Your task to perform on an android device: Open Google Chrome Image 0: 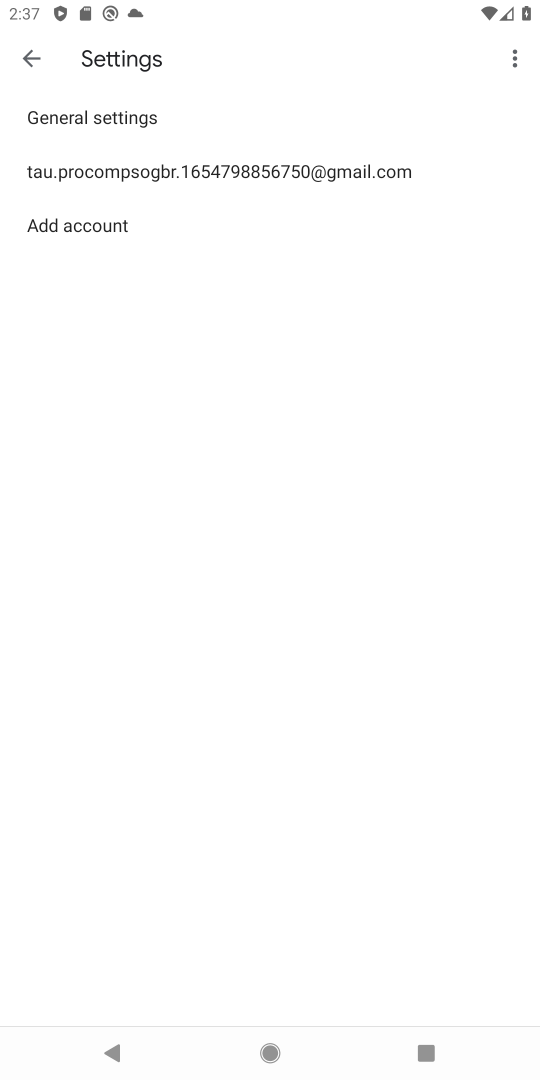
Step 0: click (27, 43)
Your task to perform on an android device: Open Google Chrome Image 1: 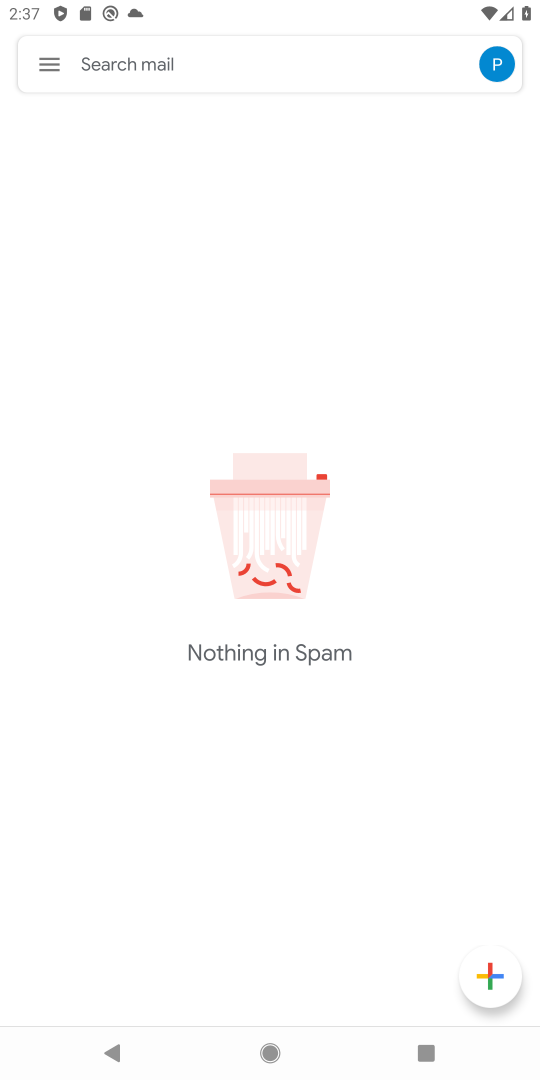
Step 1: press home button
Your task to perform on an android device: Open Google Chrome Image 2: 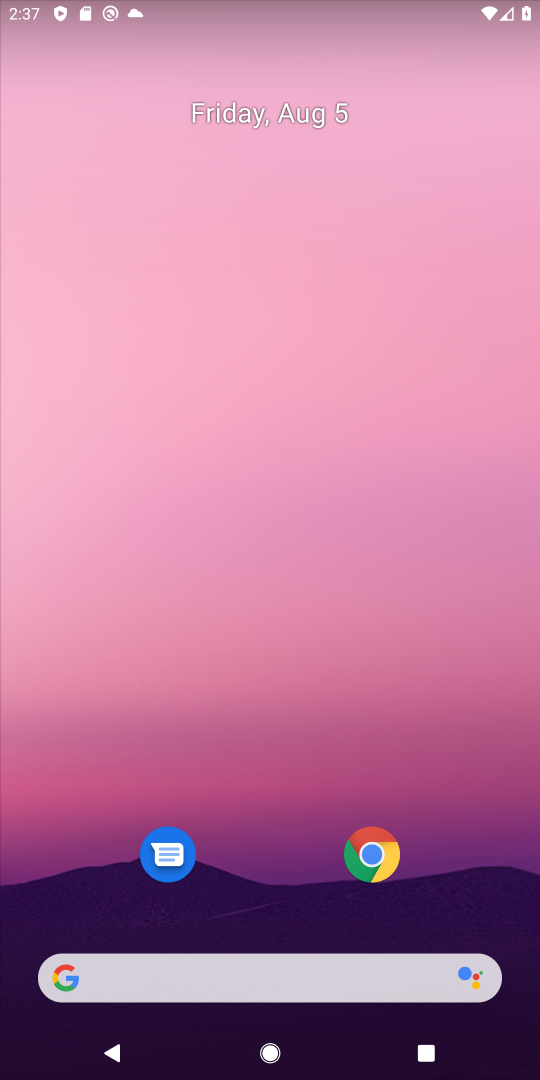
Step 2: click (381, 854)
Your task to perform on an android device: Open Google Chrome Image 3: 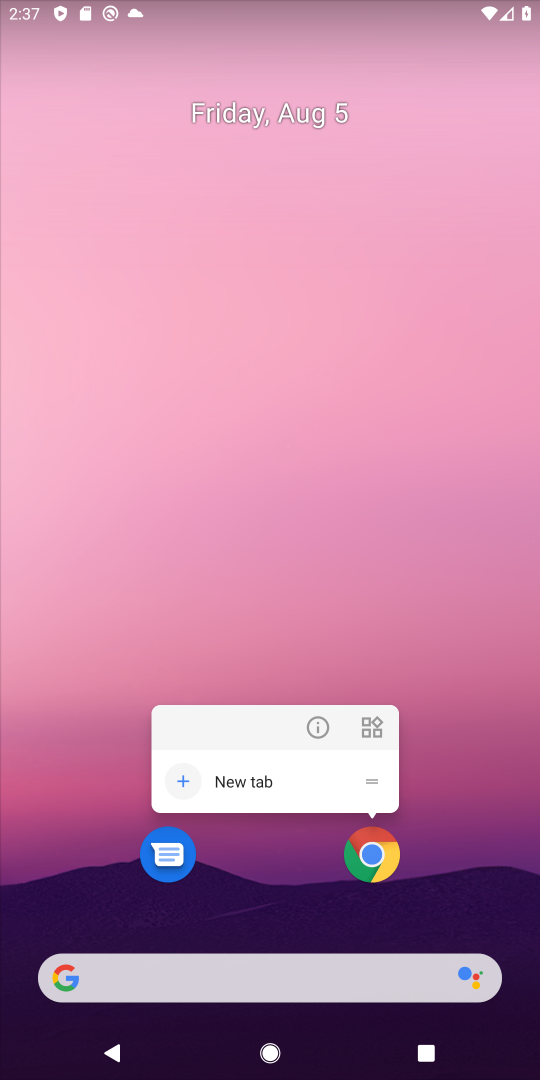
Step 3: click (376, 854)
Your task to perform on an android device: Open Google Chrome Image 4: 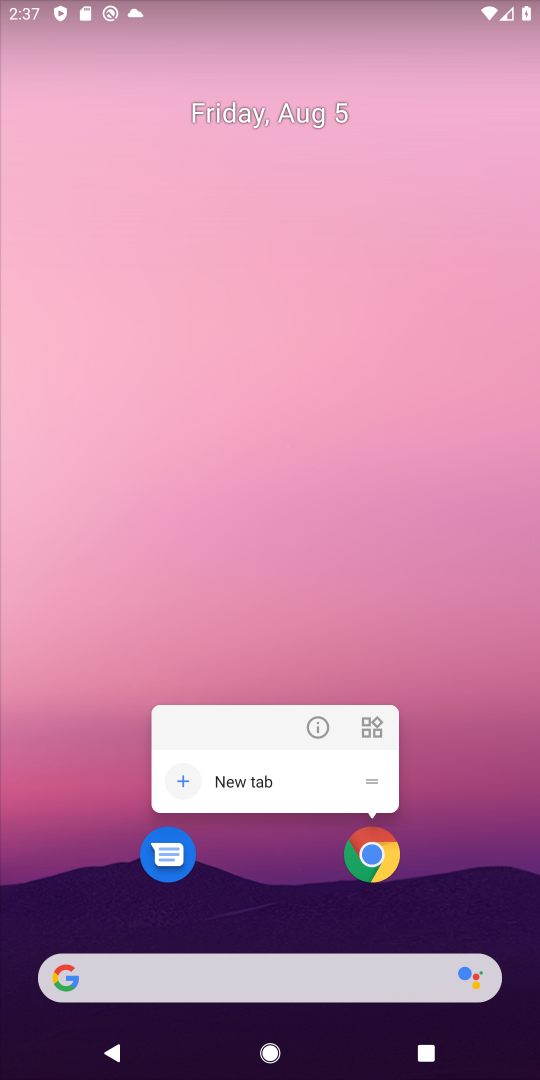
Step 4: click (376, 864)
Your task to perform on an android device: Open Google Chrome Image 5: 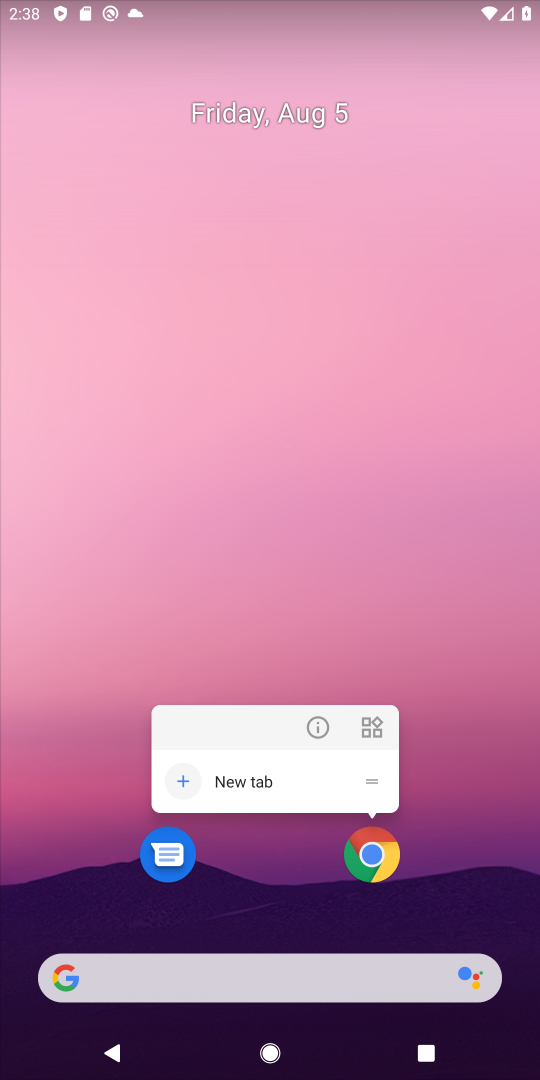
Step 5: task complete